Your task to perform on an android device: Search for "apple airpods" on costco, select the first entry, and add it to the cart. Image 0: 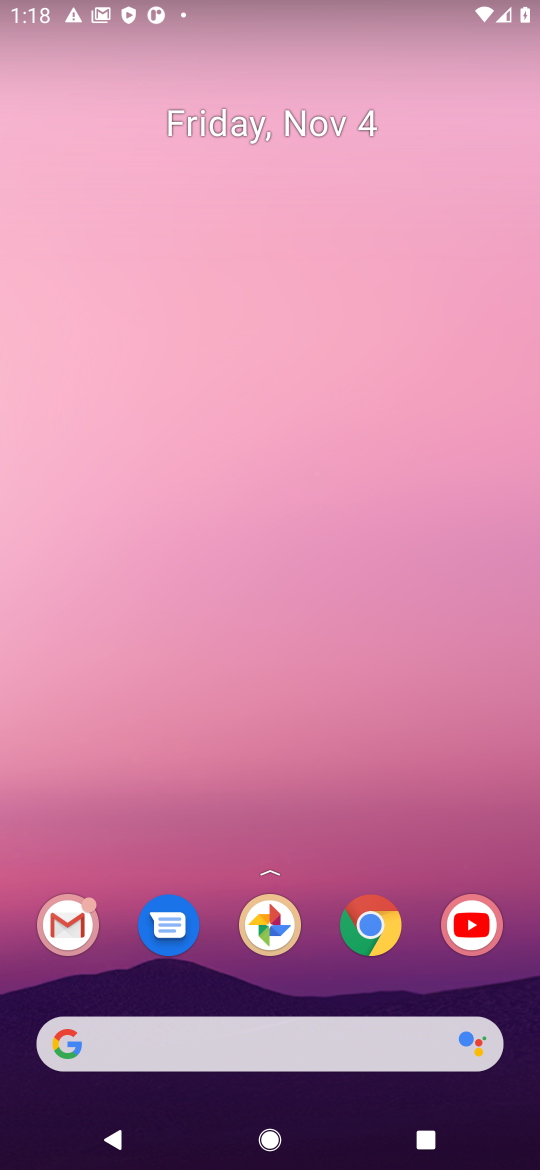
Step 0: click (365, 930)
Your task to perform on an android device: Search for "apple airpods" on costco, select the first entry, and add it to the cart. Image 1: 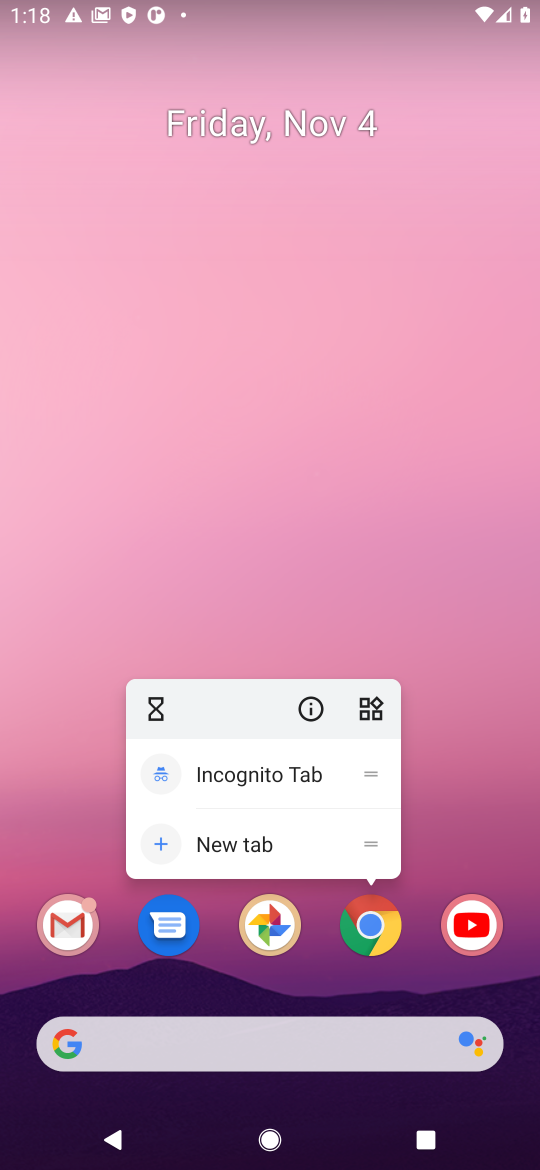
Step 1: click (372, 928)
Your task to perform on an android device: Search for "apple airpods" on costco, select the first entry, and add it to the cart. Image 2: 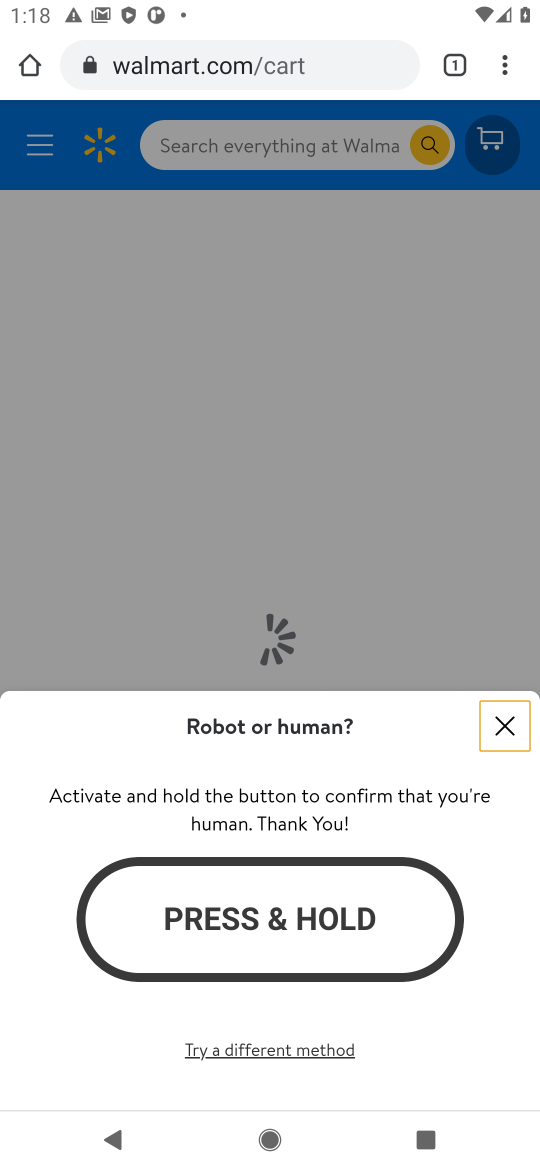
Step 2: click (507, 732)
Your task to perform on an android device: Search for "apple airpods" on costco, select the first entry, and add it to the cart. Image 3: 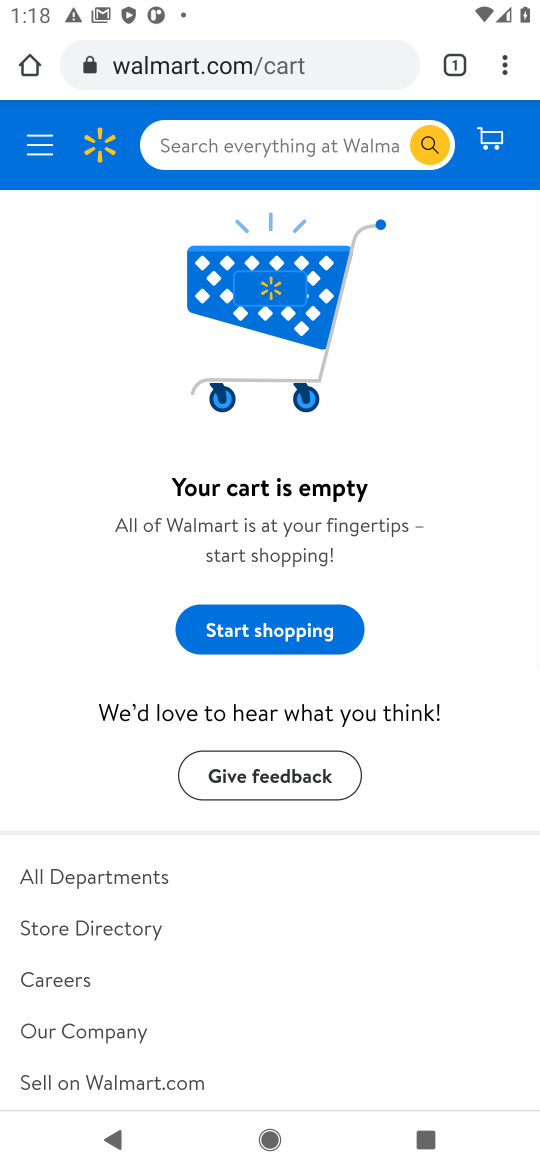
Step 3: click (302, 57)
Your task to perform on an android device: Search for "apple airpods" on costco, select the first entry, and add it to the cart. Image 4: 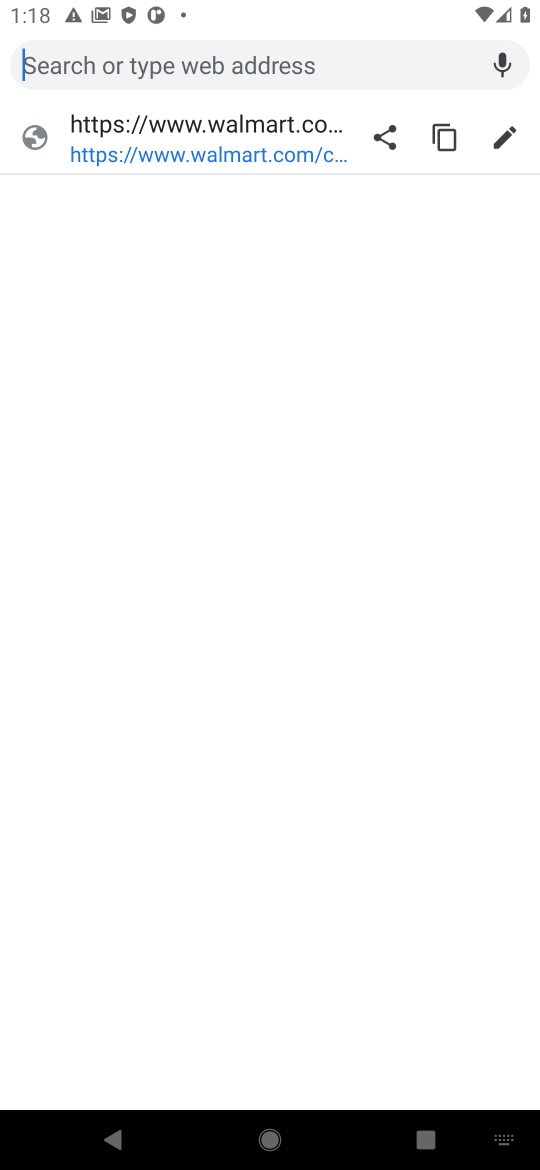
Step 4: press enter
Your task to perform on an android device: Search for "apple airpods" on costco, select the first entry, and add it to the cart. Image 5: 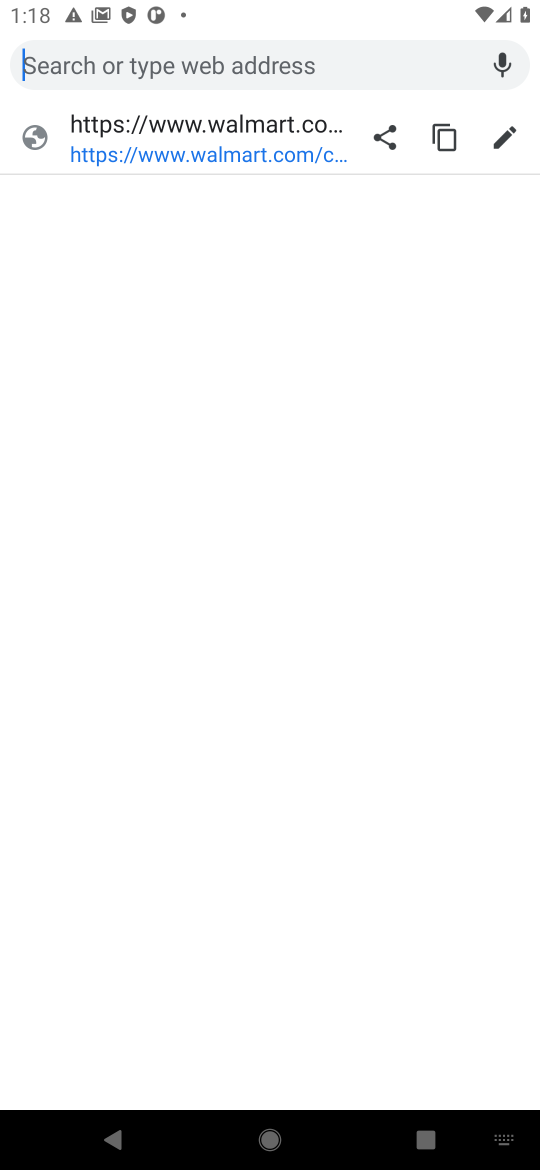
Step 5: type "costco"
Your task to perform on an android device: Search for "apple airpods" on costco, select the first entry, and add it to the cart. Image 6: 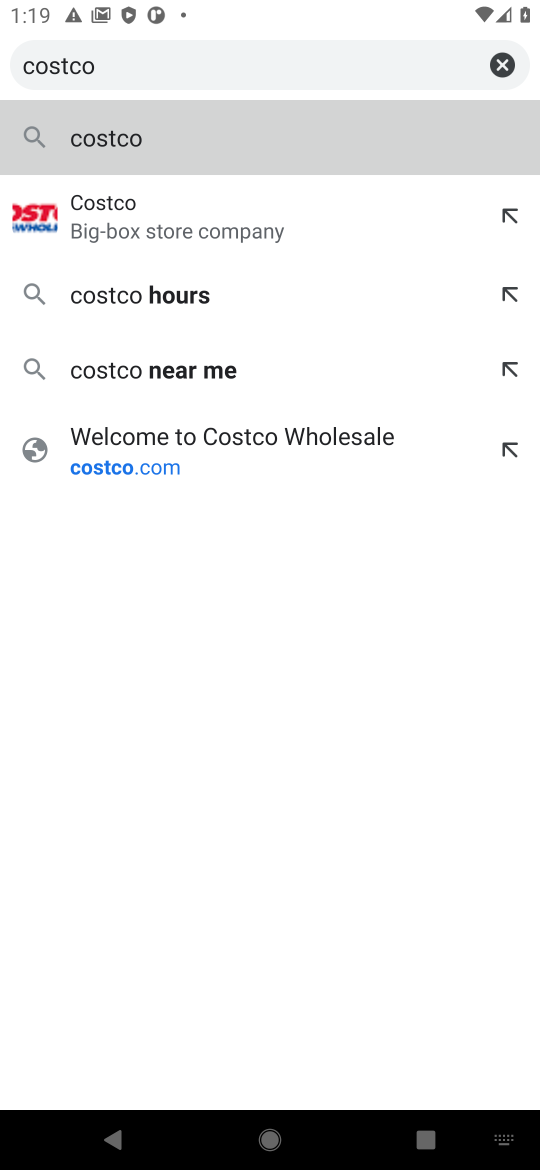
Step 6: click (142, 216)
Your task to perform on an android device: Search for "apple airpods" on costco, select the first entry, and add it to the cart. Image 7: 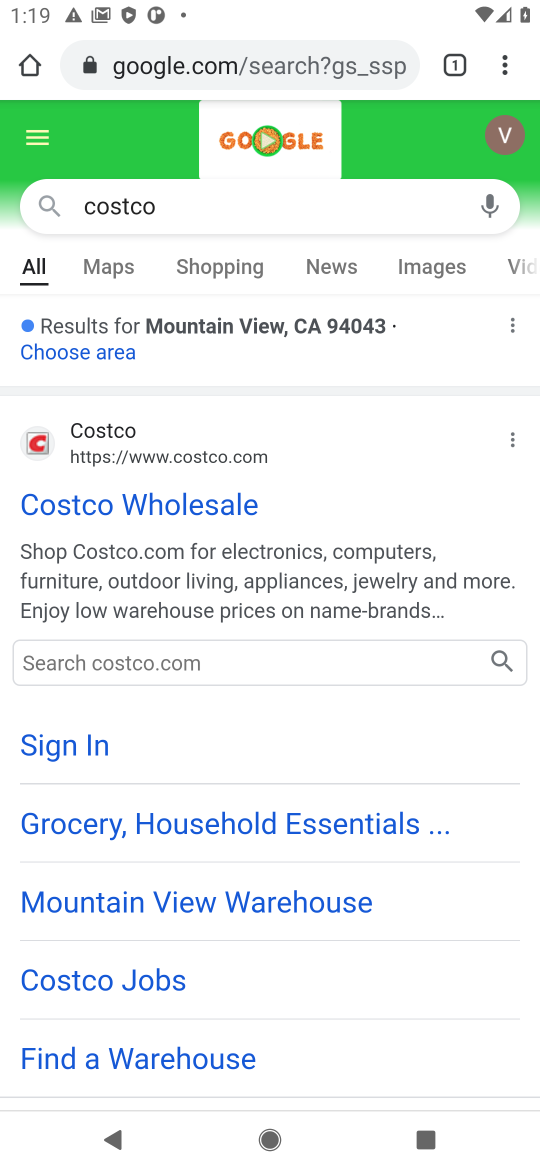
Step 7: click (223, 456)
Your task to perform on an android device: Search for "apple airpods" on costco, select the first entry, and add it to the cart. Image 8: 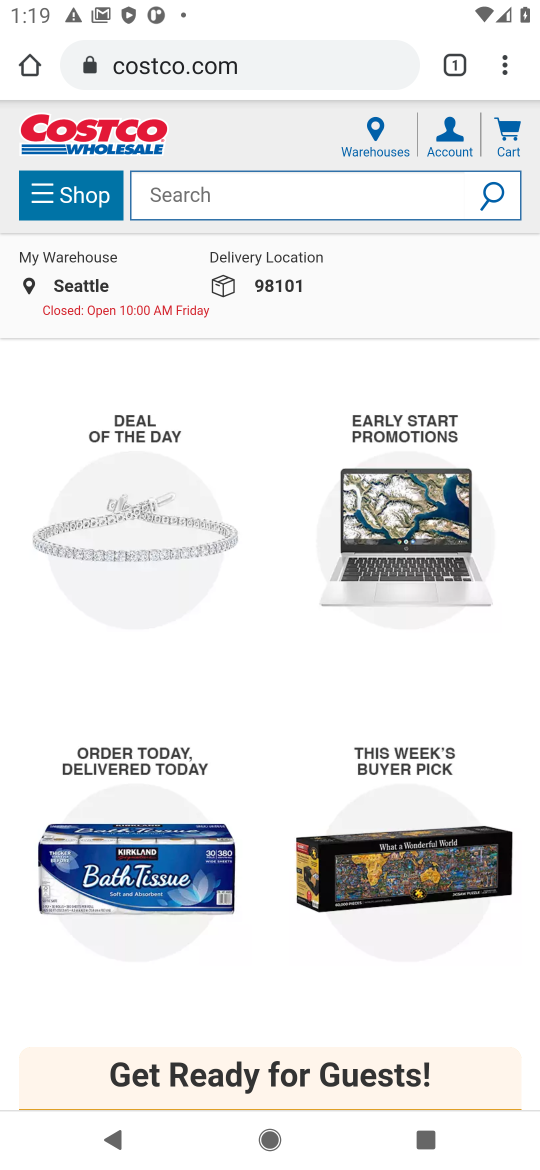
Step 8: click (349, 199)
Your task to perform on an android device: Search for "apple airpods" on costco, select the first entry, and add it to the cart. Image 9: 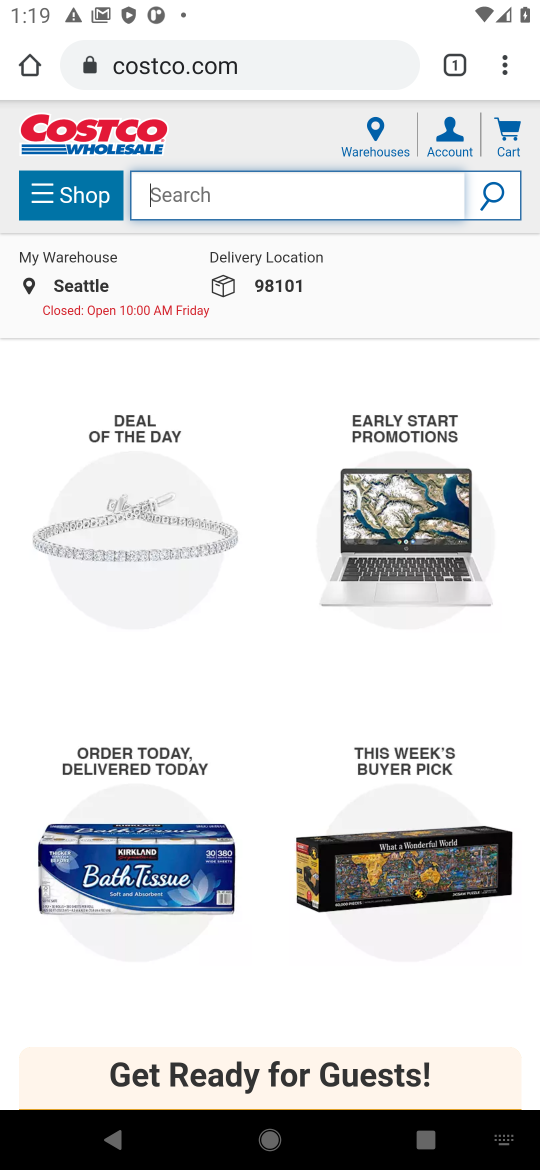
Step 9: press enter
Your task to perform on an android device: Search for "apple airpods" on costco, select the first entry, and add it to the cart. Image 10: 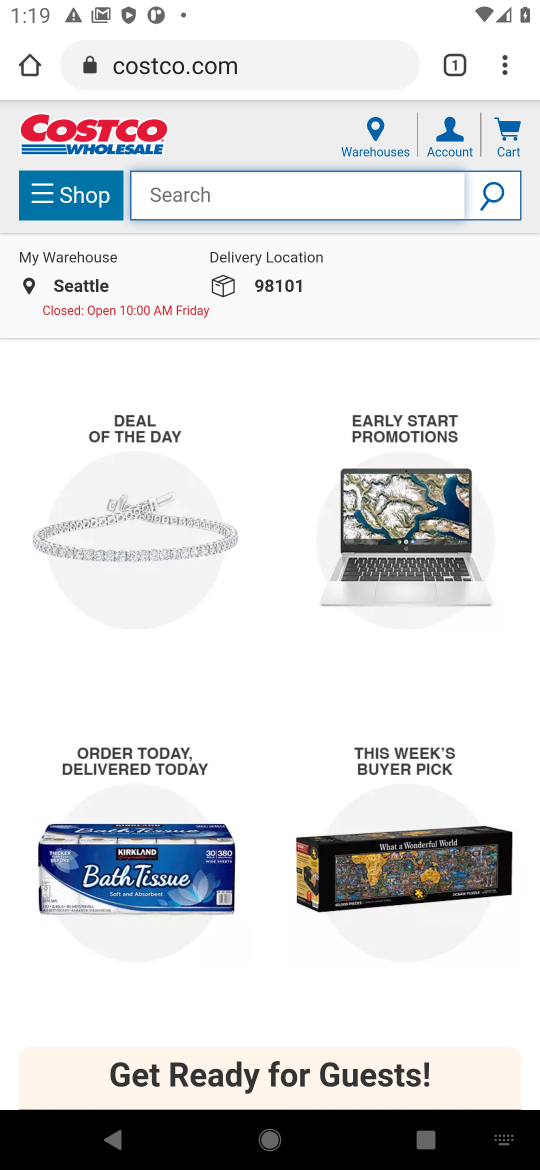
Step 10: type "apple airpods"
Your task to perform on an android device: Search for "apple airpods" on costco, select the first entry, and add it to the cart. Image 11: 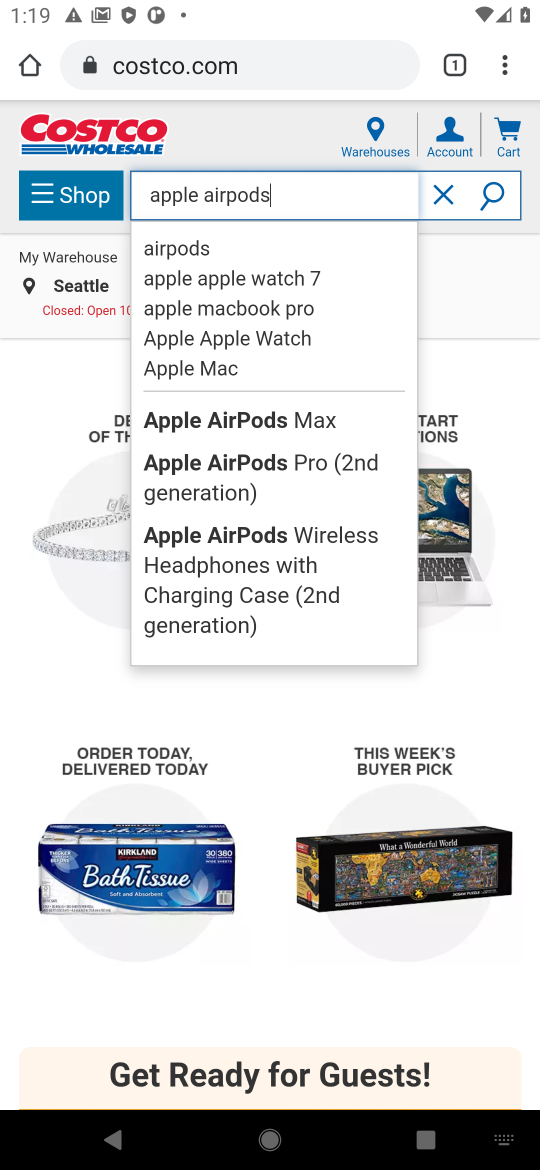
Step 11: click (227, 420)
Your task to perform on an android device: Search for "apple airpods" on costco, select the first entry, and add it to the cart. Image 12: 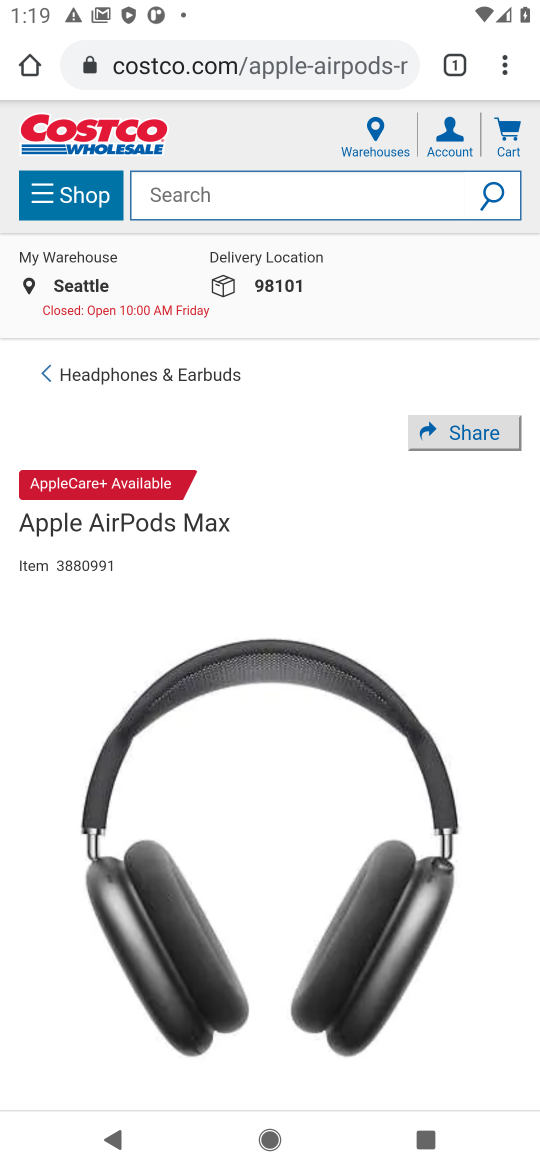
Step 12: drag from (350, 744) to (366, 469)
Your task to perform on an android device: Search for "apple airpods" on costco, select the first entry, and add it to the cart. Image 13: 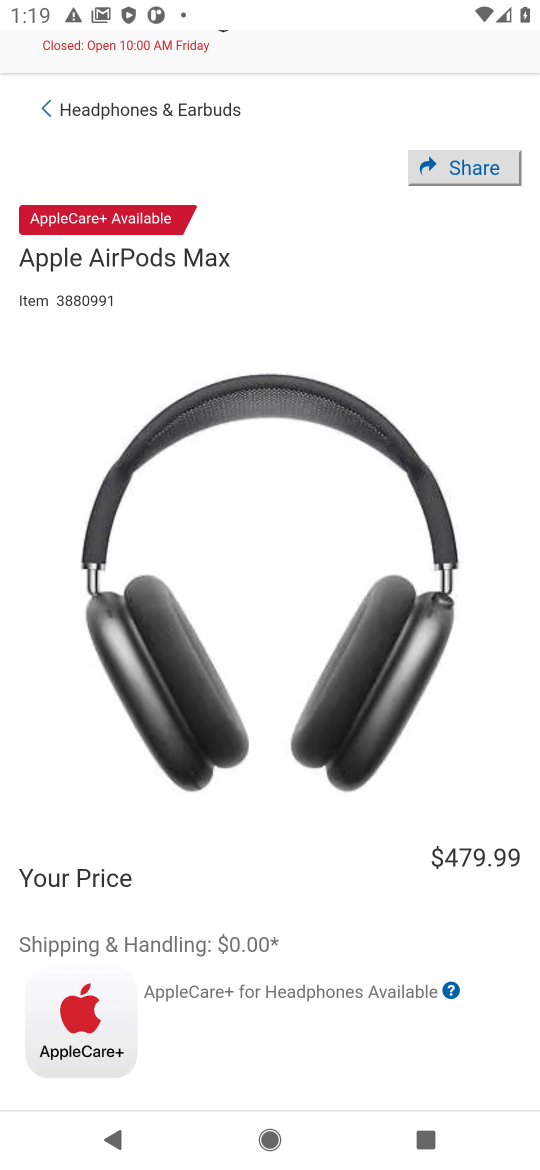
Step 13: drag from (299, 713) to (318, 287)
Your task to perform on an android device: Search for "apple airpods" on costco, select the first entry, and add it to the cart. Image 14: 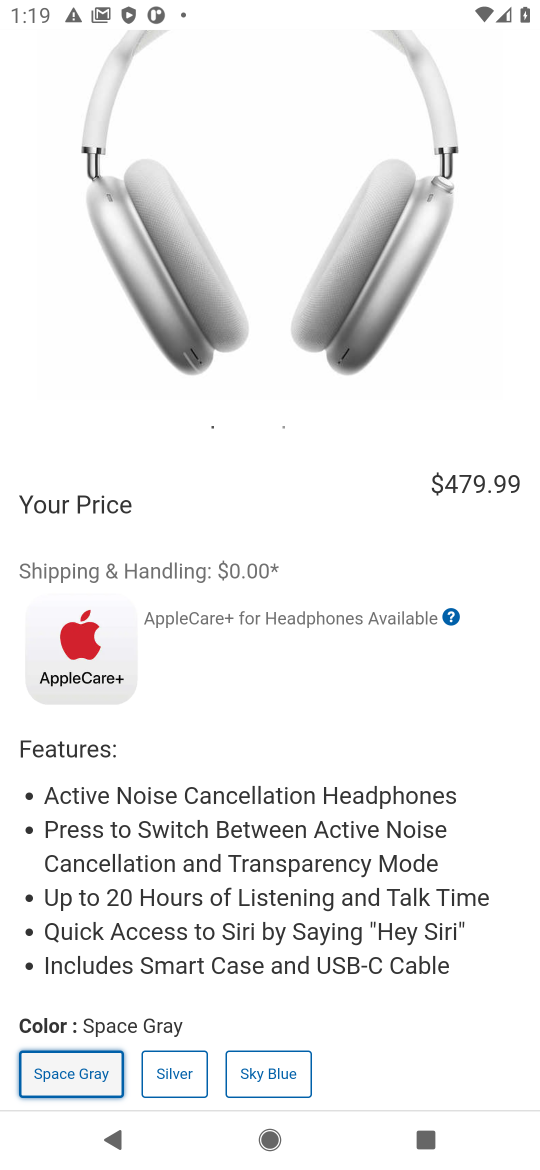
Step 14: drag from (351, 543) to (368, 397)
Your task to perform on an android device: Search for "apple airpods" on costco, select the first entry, and add it to the cart. Image 15: 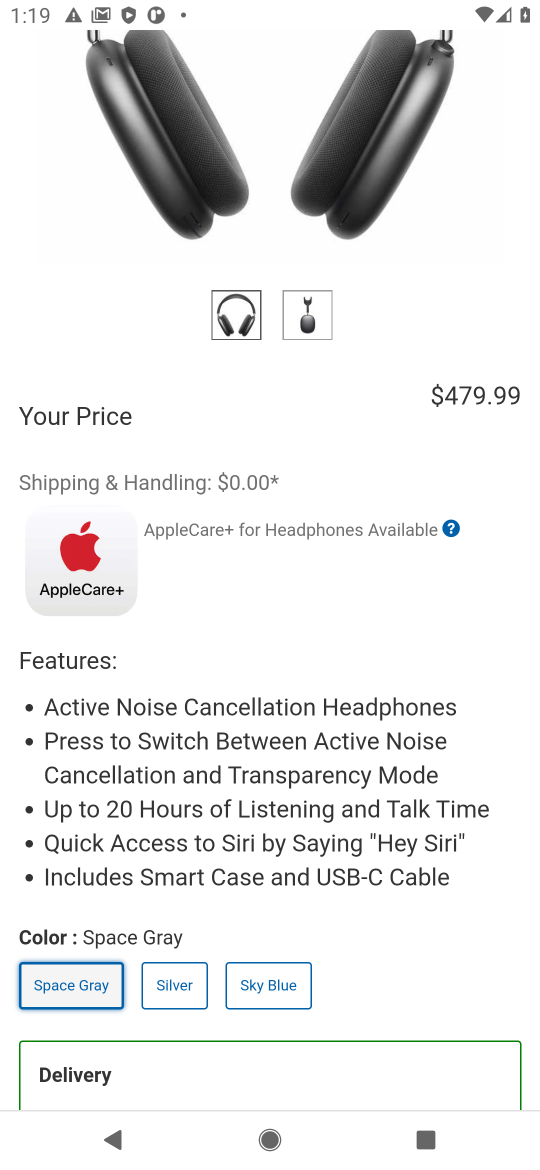
Step 15: drag from (446, 750) to (411, 431)
Your task to perform on an android device: Search for "apple airpods" on costco, select the first entry, and add it to the cart. Image 16: 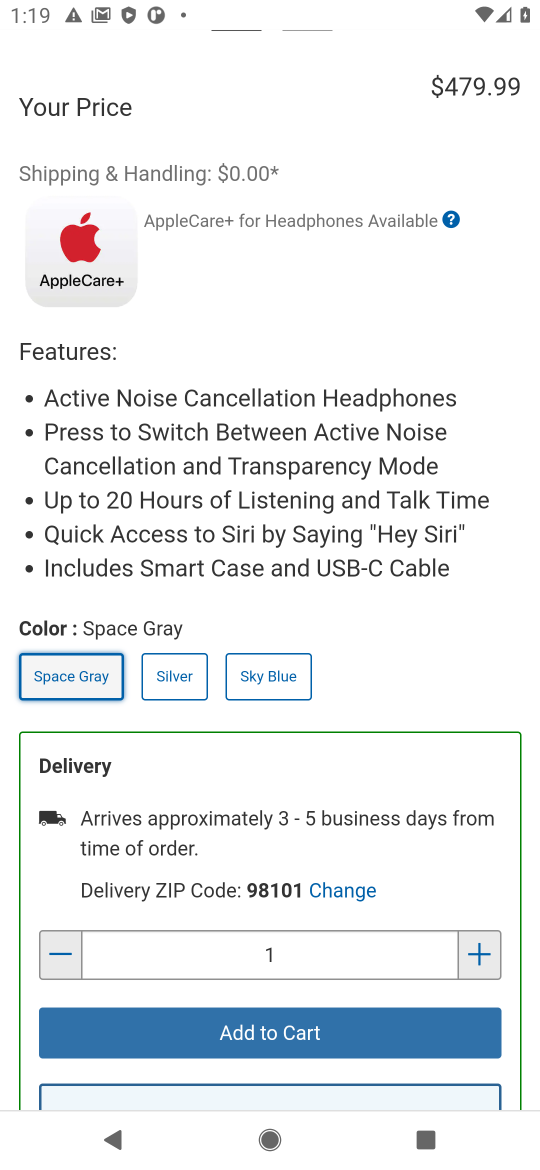
Step 16: click (283, 1035)
Your task to perform on an android device: Search for "apple airpods" on costco, select the first entry, and add it to the cart. Image 17: 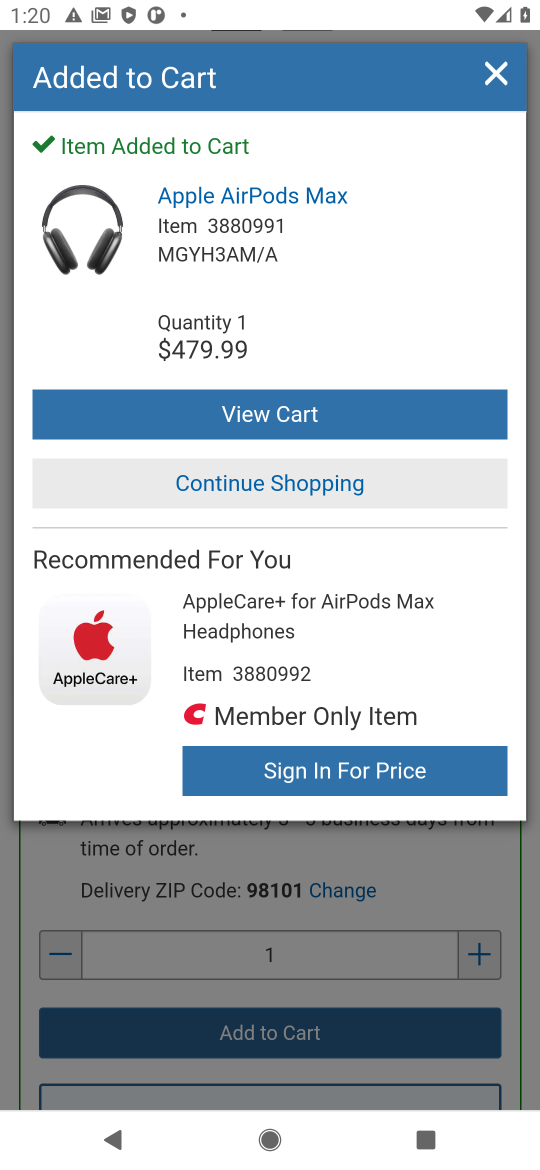
Step 17: click (494, 70)
Your task to perform on an android device: Search for "apple airpods" on costco, select the first entry, and add it to the cart. Image 18: 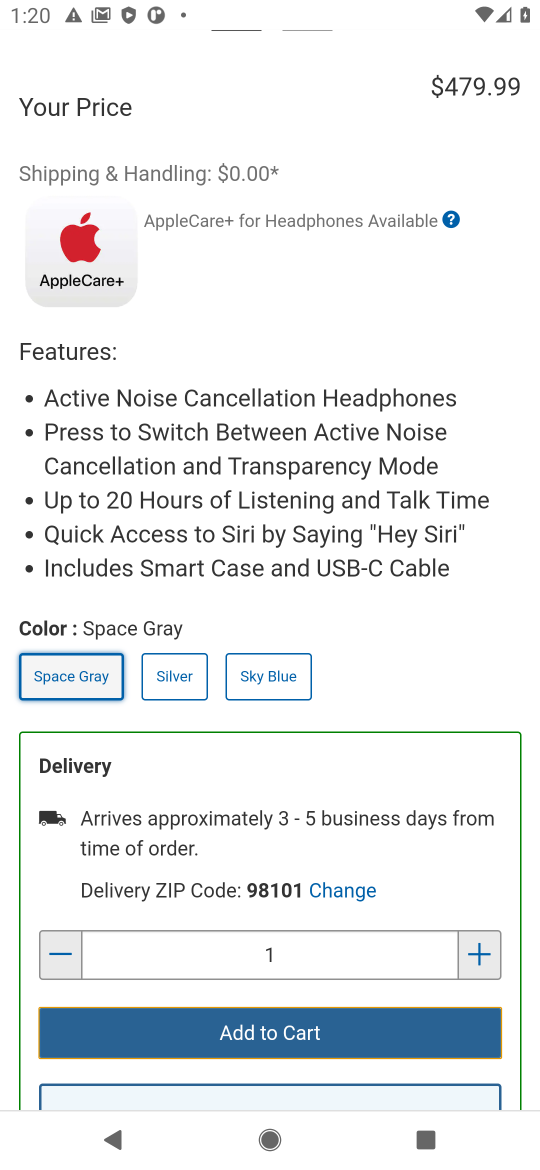
Step 18: task complete